Your task to perform on an android device: Go to Amazon Image 0: 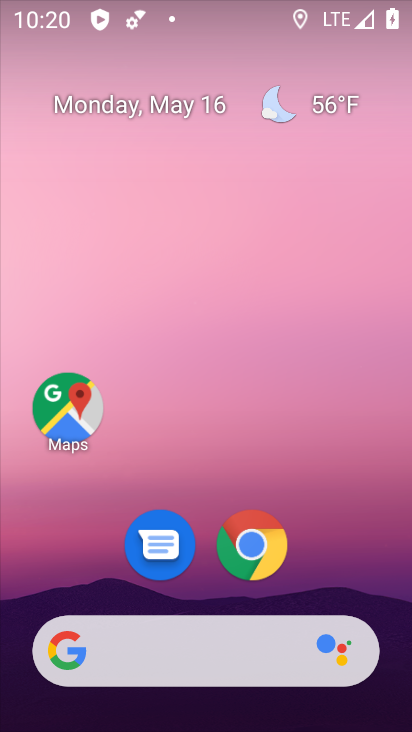
Step 0: click (233, 543)
Your task to perform on an android device: Go to Amazon Image 1: 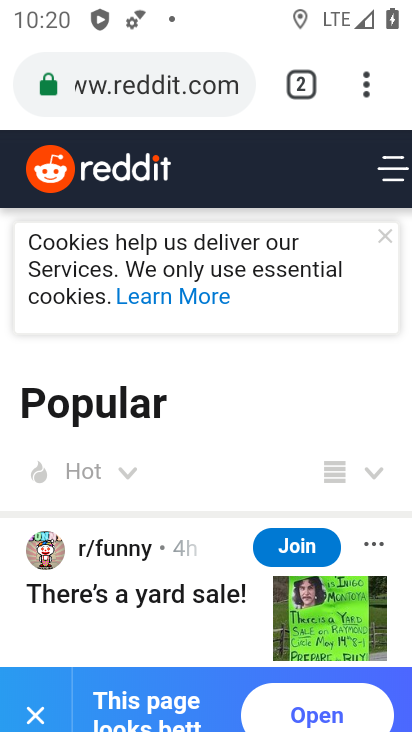
Step 1: click (315, 92)
Your task to perform on an android device: Go to Amazon Image 2: 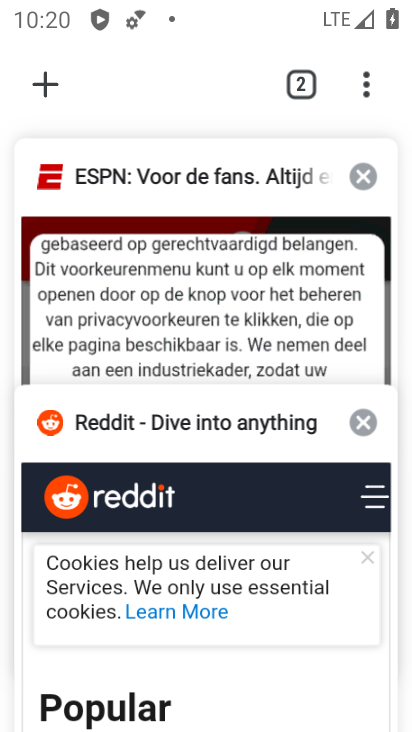
Step 2: click (54, 76)
Your task to perform on an android device: Go to Amazon Image 3: 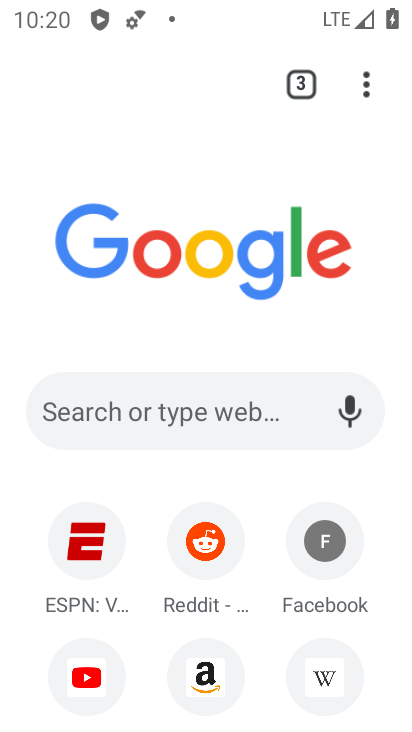
Step 3: click (209, 673)
Your task to perform on an android device: Go to Amazon Image 4: 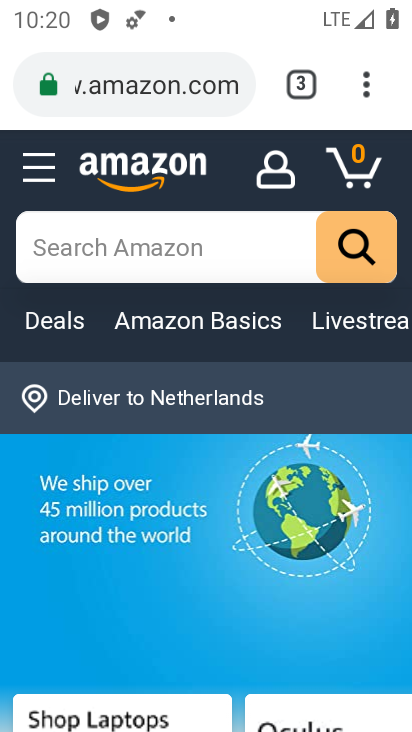
Step 4: task complete